Your task to perform on an android device: Go to sound settings Image 0: 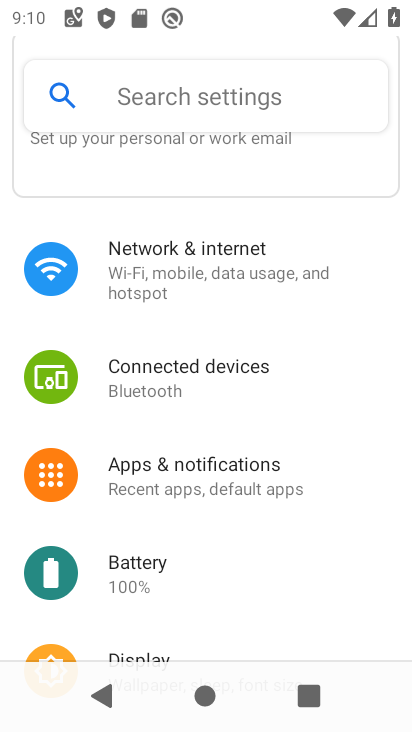
Step 0: press home button
Your task to perform on an android device: Go to sound settings Image 1: 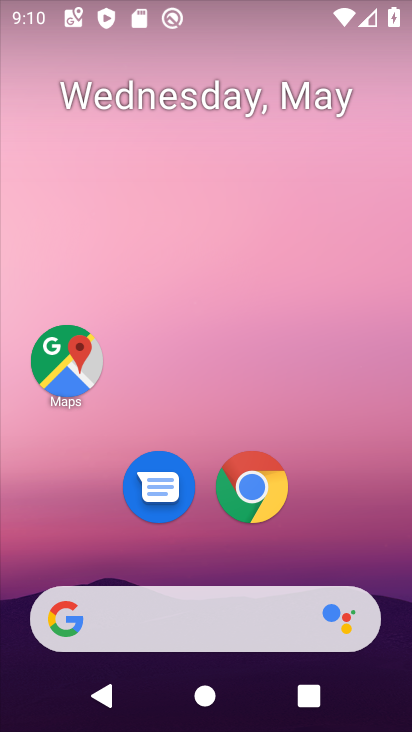
Step 1: drag from (323, 541) to (210, 73)
Your task to perform on an android device: Go to sound settings Image 2: 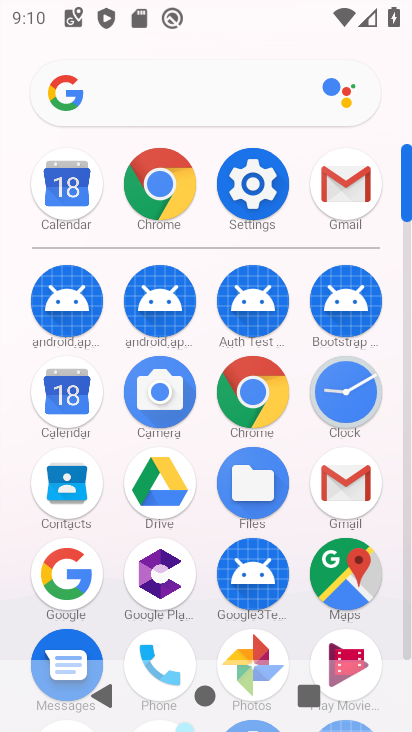
Step 2: click (243, 177)
Your task to perform on an android device: Go to sound settings Image 3: 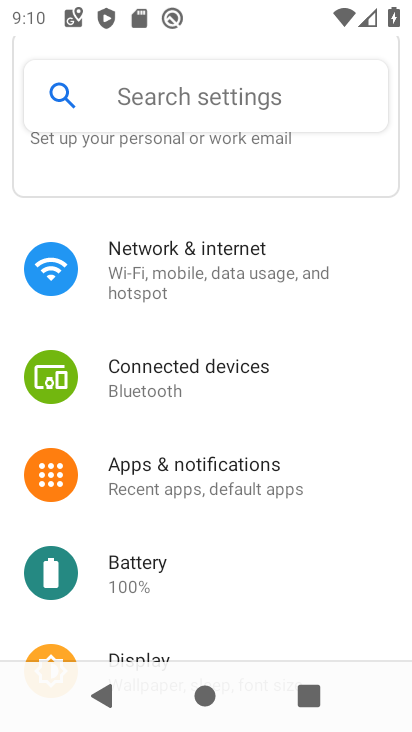
Step 3: drag from (240, 523) to (207, 236)
Your task to perform on an android device: Go to sound settings Image 4: 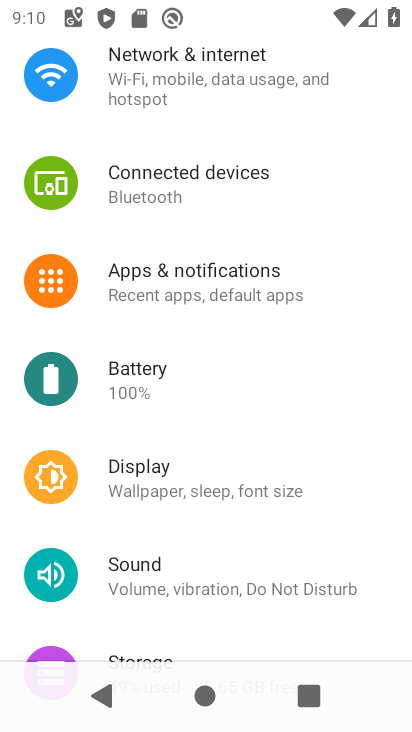
Step 4: click (146, 570)
Your task to perform on an android device: Go to sound settings Image 5: 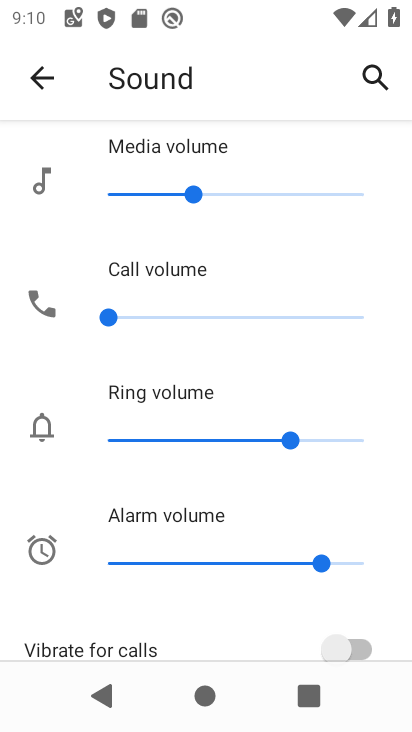
Step 5: task complete